Your task to perform on an android device: Open the stopwatch Image 0: 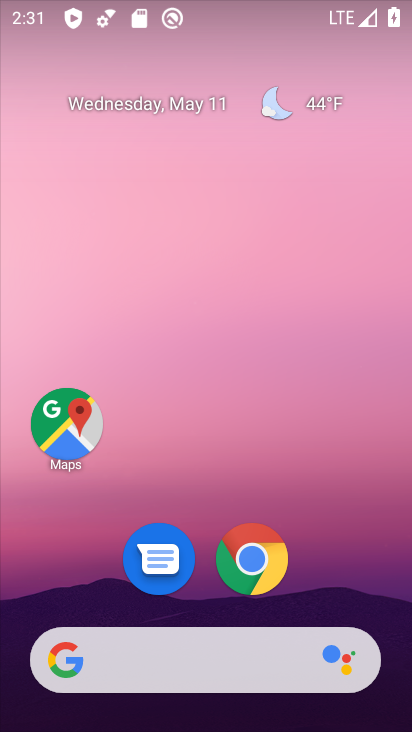
Step 0: drag from (320, 546) to (264, 115)
Your task to perform on an android device: Open the stopwatch Image 1: 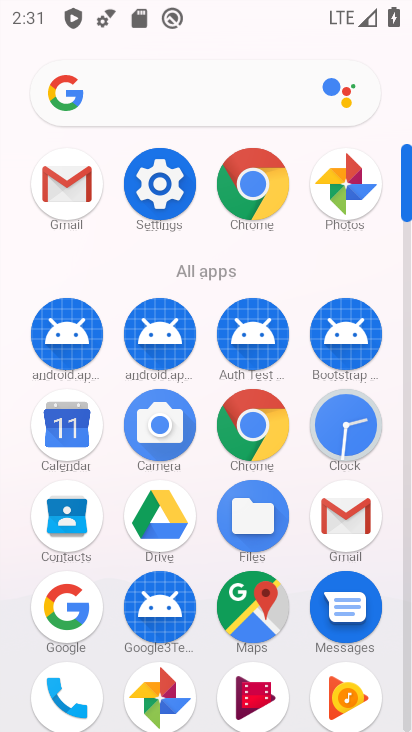
Step 1: click (338, 420)
Your task to perform on an android device: Open the stopwatch Image 2: 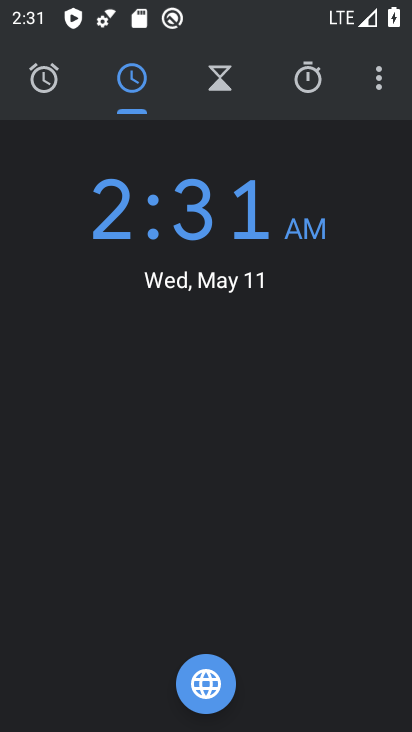
Step 2: click (307, 71)
Your task to perform on an android device: Open the stopwatch Image 3: 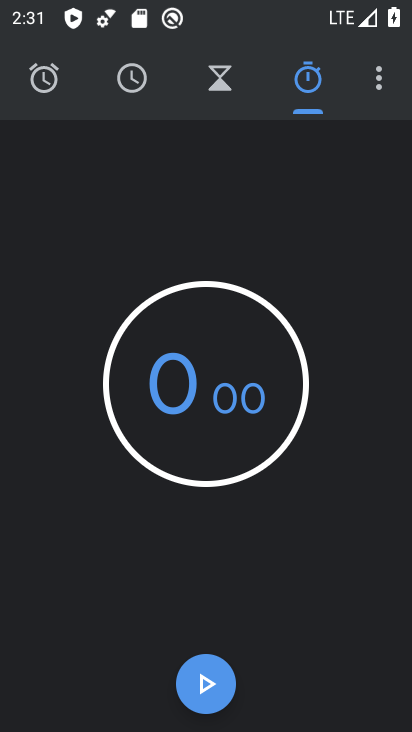
Step 3: task complete